Your task to perform on an android device: When is my next appointment? Image 0: 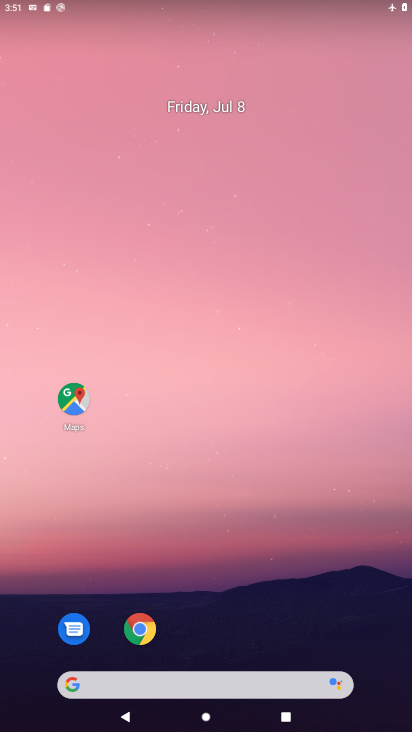
Step 0: click (262, 192)
Your task to perform on an android device: When is my next appointment? Image 1: 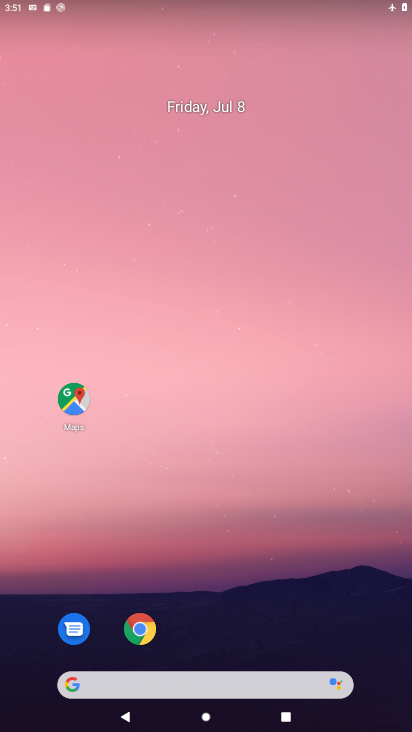
Step 1: drag from (185, 652) to (236, 262)
Your task to perform on an android device: When is my next appointment? Image 2: 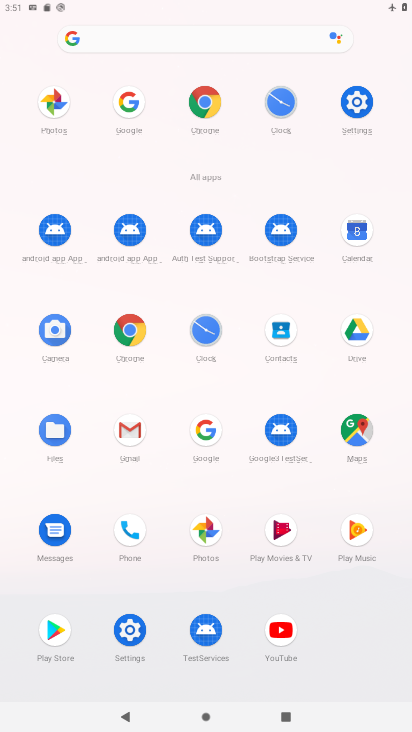
Step 2: click (368, 226)
Your task to perform on an android device: When is my next appointment? Image 3: 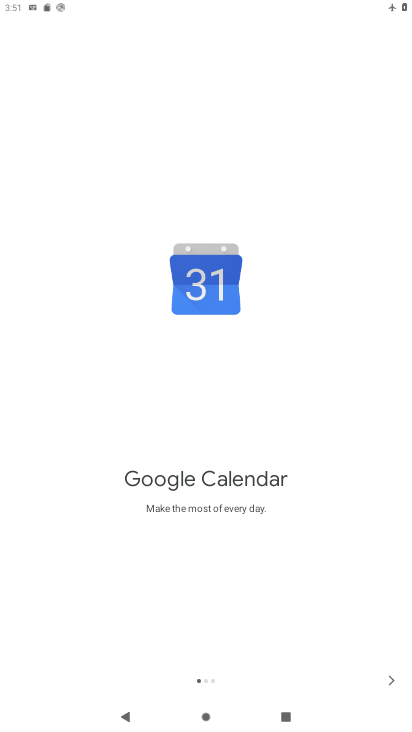
Step 3: click (389, 680)
Your task to perform on an android device: When is my next appointment? Image 4: 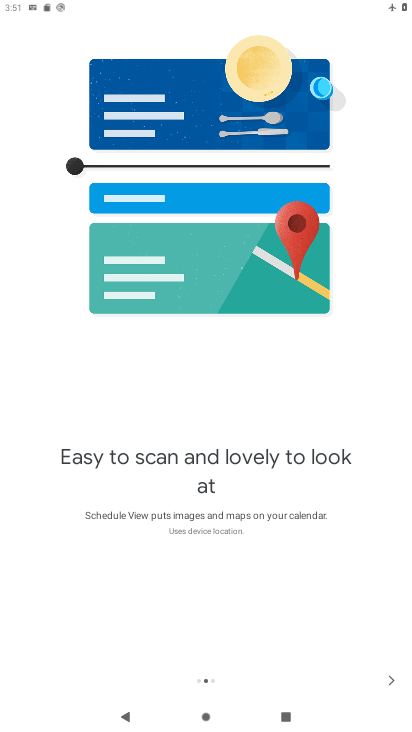
Step 4: click (389, 680)
Your task to perform on an android device: When is my next appointment? Image 5: 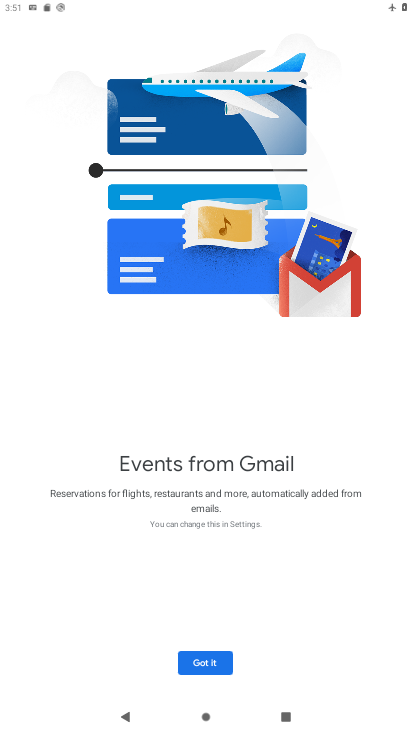
Step 5: click (195, 652)
Your task to perform on an android device: When is my next appointment? Image 6: 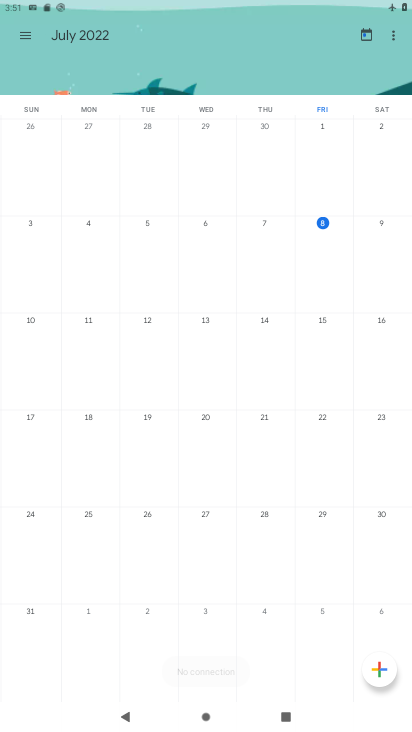
Step 6: click (379, 254)
Your task to perform on an android device: When is my next appointment? Image 7: 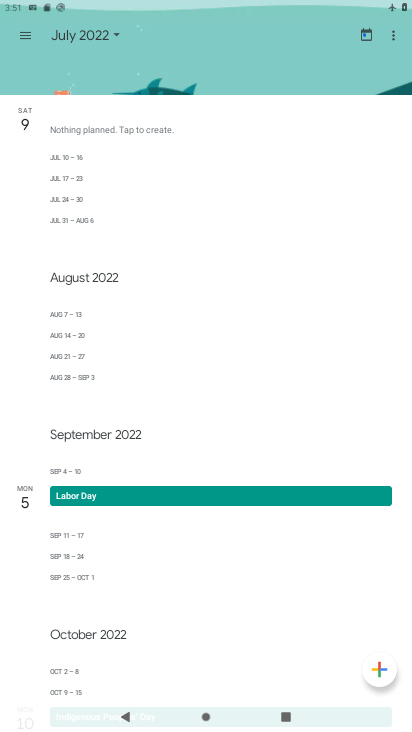
Step 7: task complete